Your task to perform on an android device: What's the weather going to be tomorrow? Image 0: 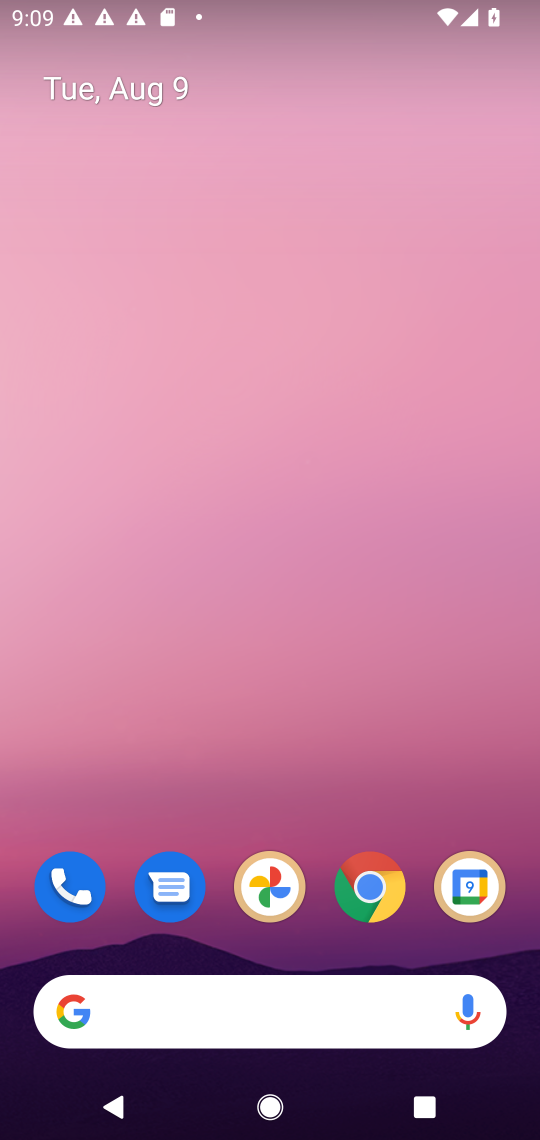
Step 0: drag from (289, 773) to (274, 276)
Your task to perform on an android device: What's the weather going to be tomorrow? Image 1: 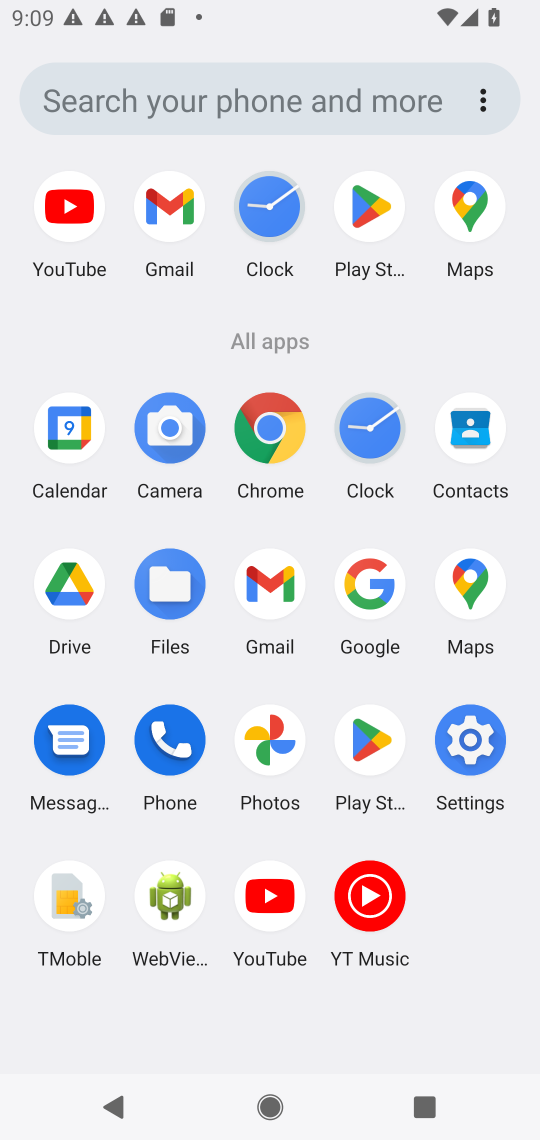
Step 1: click (369, 599)
Your task to perform on an android device: What's the weather going to be tomorrow? Image 2: 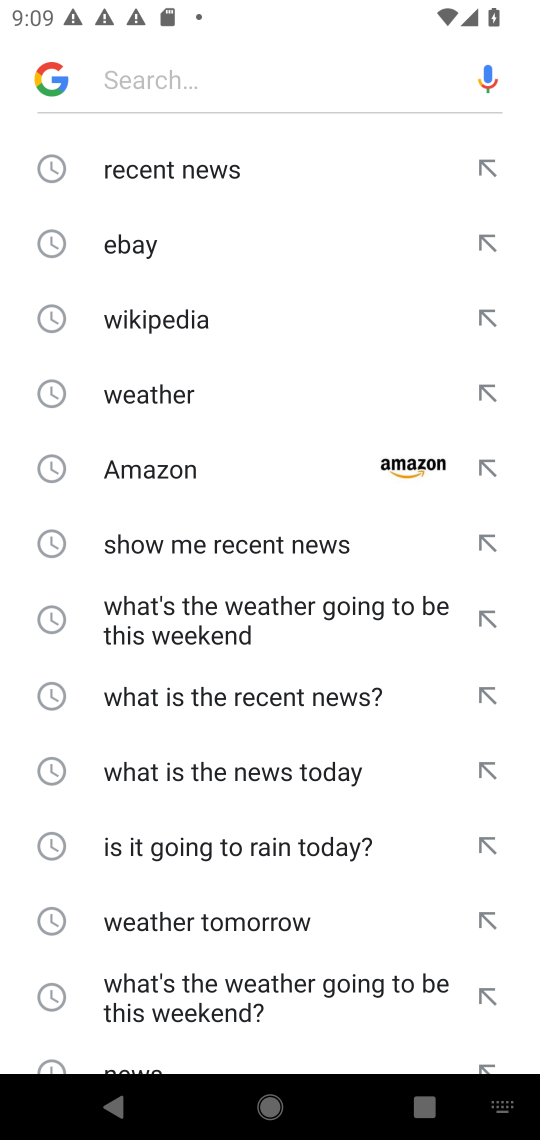
Step 2: click (202, 392)
Your task to perform on an android device: What's the weather going to be tomorrow? Image 3: 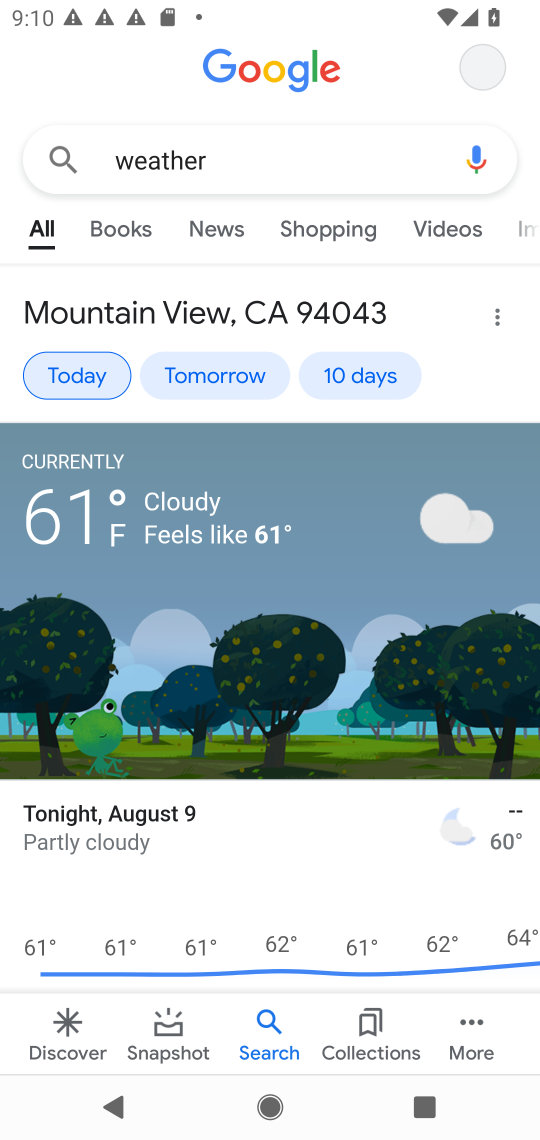
Step 3: click (207, 388)
Your task to perform on an android device: What's the weather going to be tomorrow? Image 4: 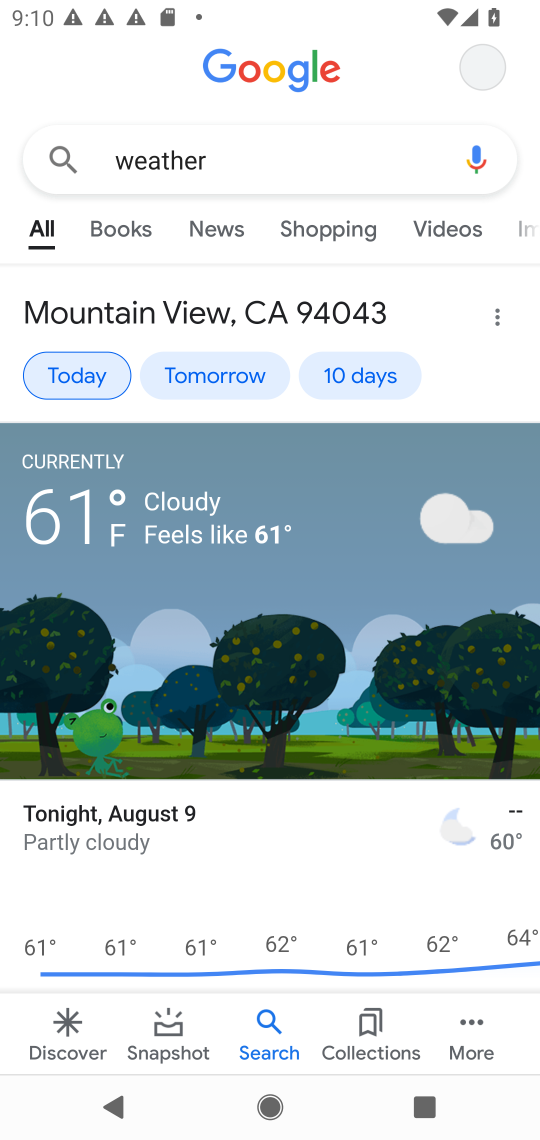
Step 4: click (207, 388)
Your task to perform on an android device: What's the weather going to be tomorrow? Image 5: 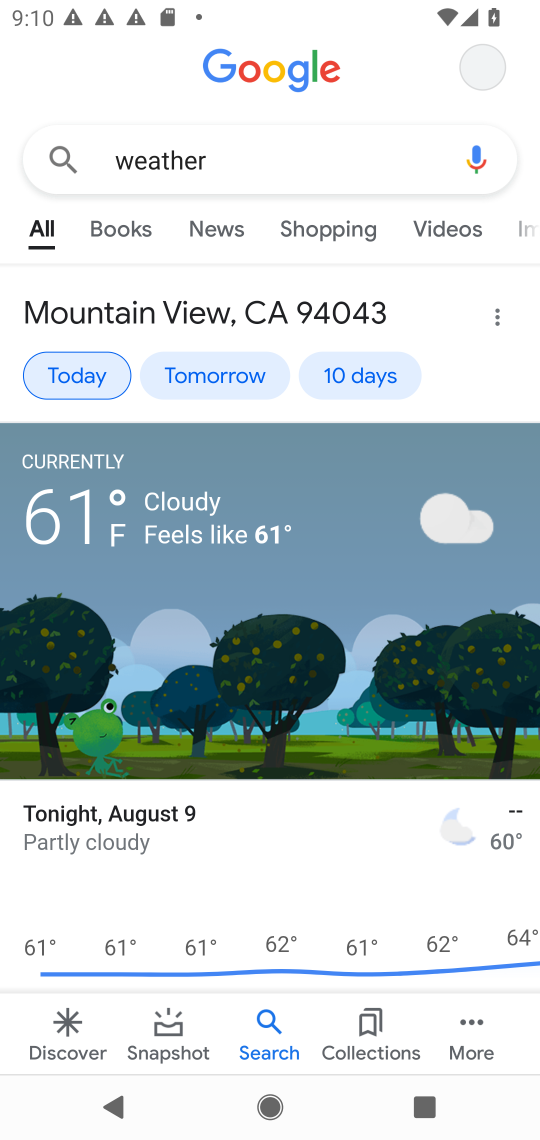
Step 5: click (216, 373)
Your task to perform on an android device: What's the weather going to be tomorrow? Image 6: 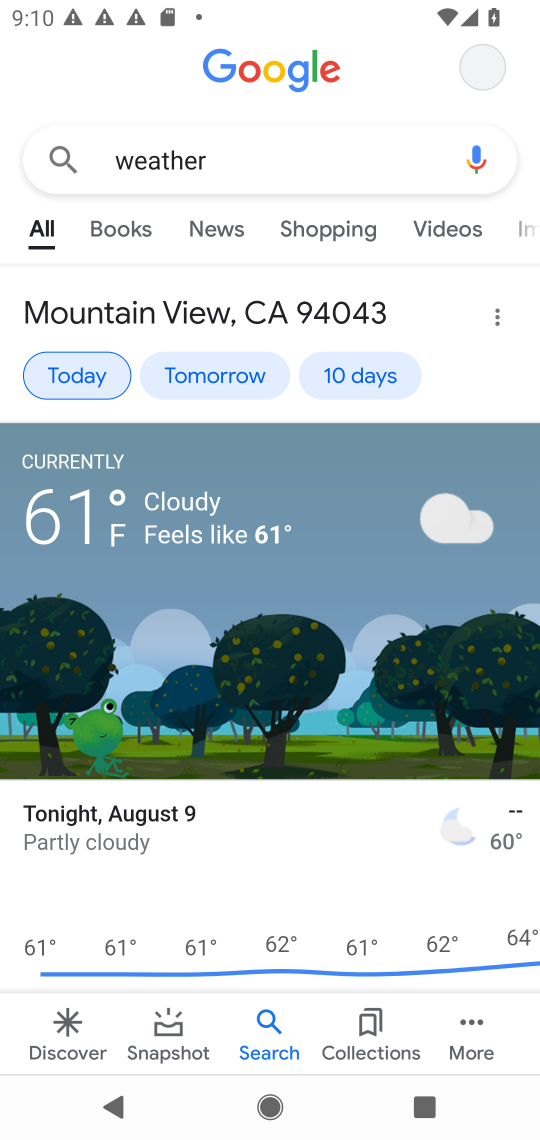
Step 6: click (221, 392)
Your task to perform on an android device: What's the weather going to be tomorrow? Image 7: 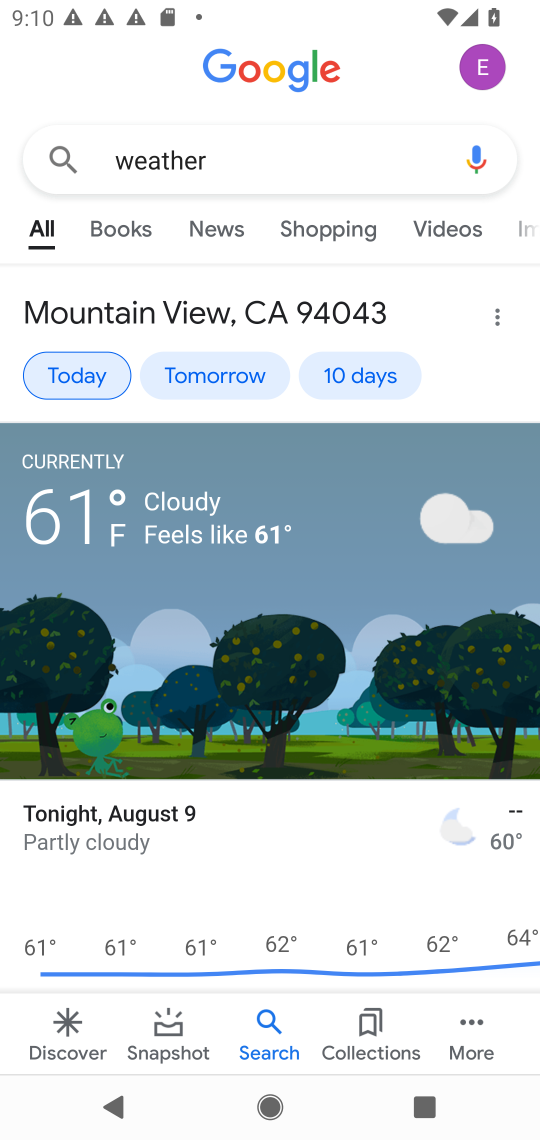
Step 7: click (263, 371)
Your task to perform on an android device: What's the weather going to be tomorrow? Image 8: 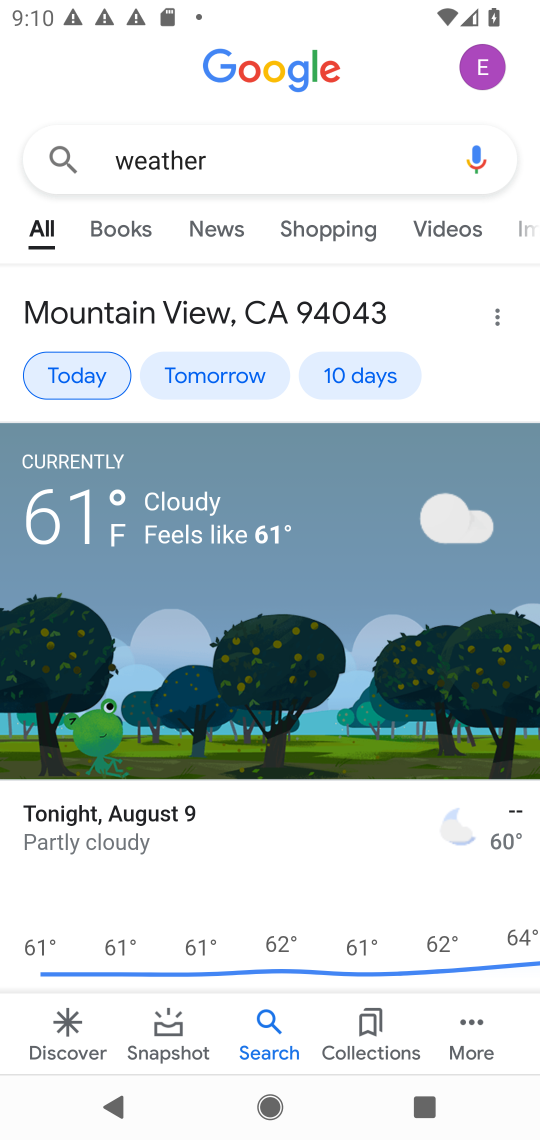
Step 8: click (265, 375)
Your task to perform on an android device: What's the weather going to be tomorrow? Image 9: 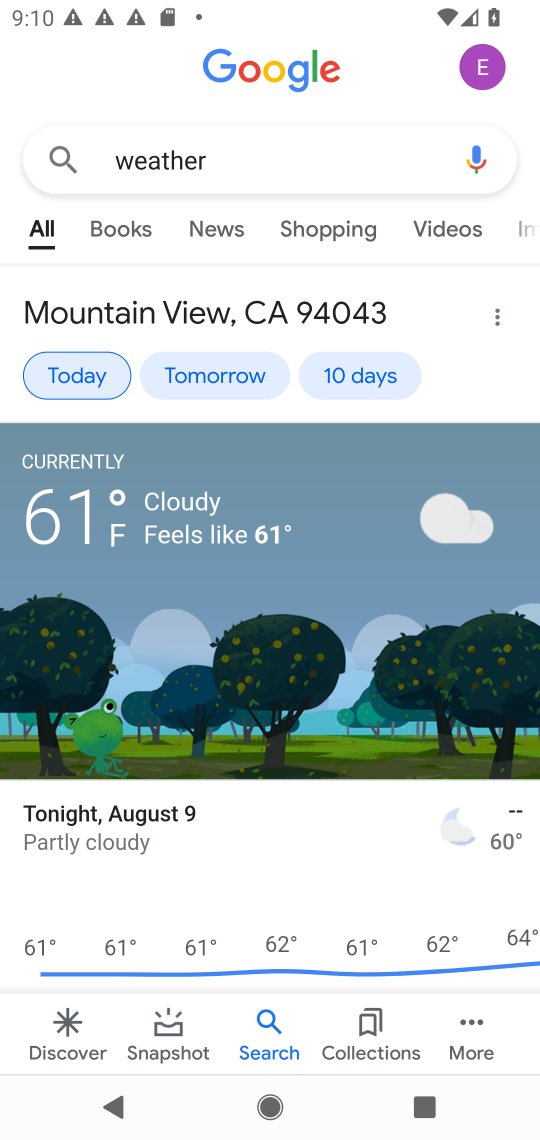
Step 9: click (201, 357)
Your task to perform on an android device: What's the weather going to be tomorrow? Image 10: 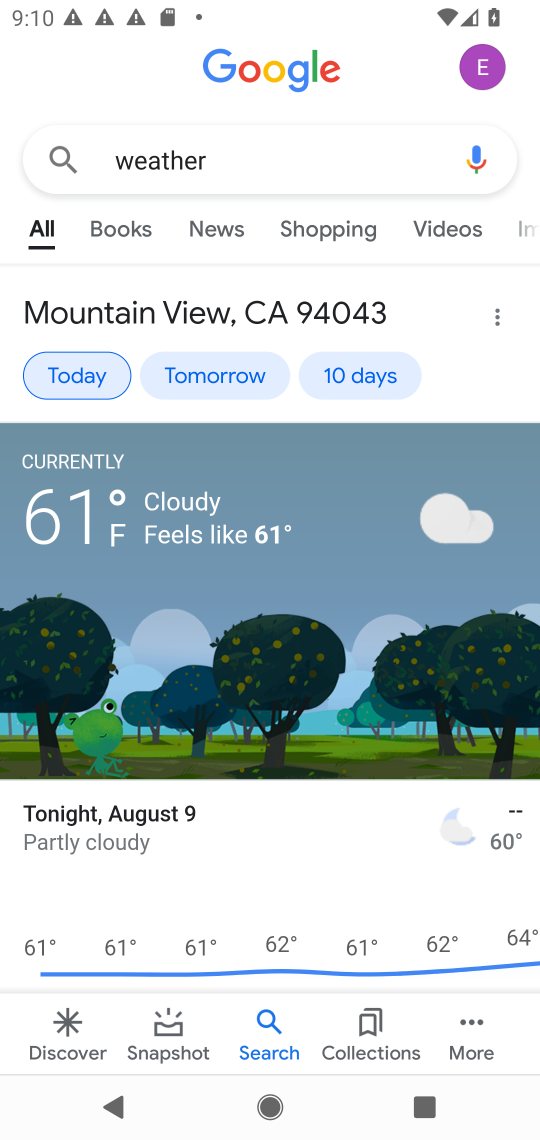
Step 10: click (176, 388)
Your task to perform on an android device: What's the weather going to be tomorrow? Image 11: 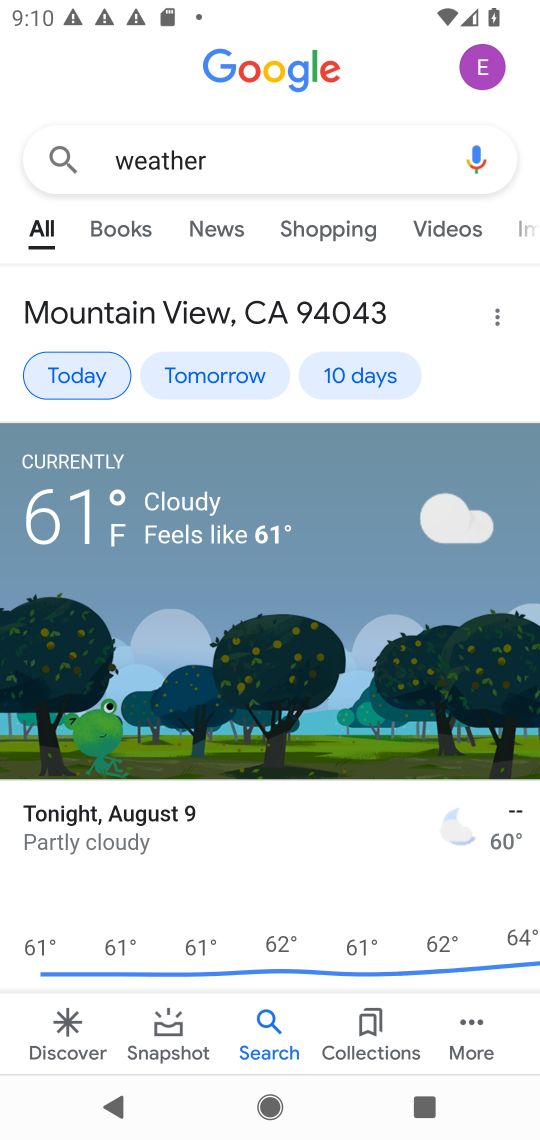
Step 11: click (260, 373)
Your task to perform on an android device: What's the weather going to be tomorrow? Image 12: 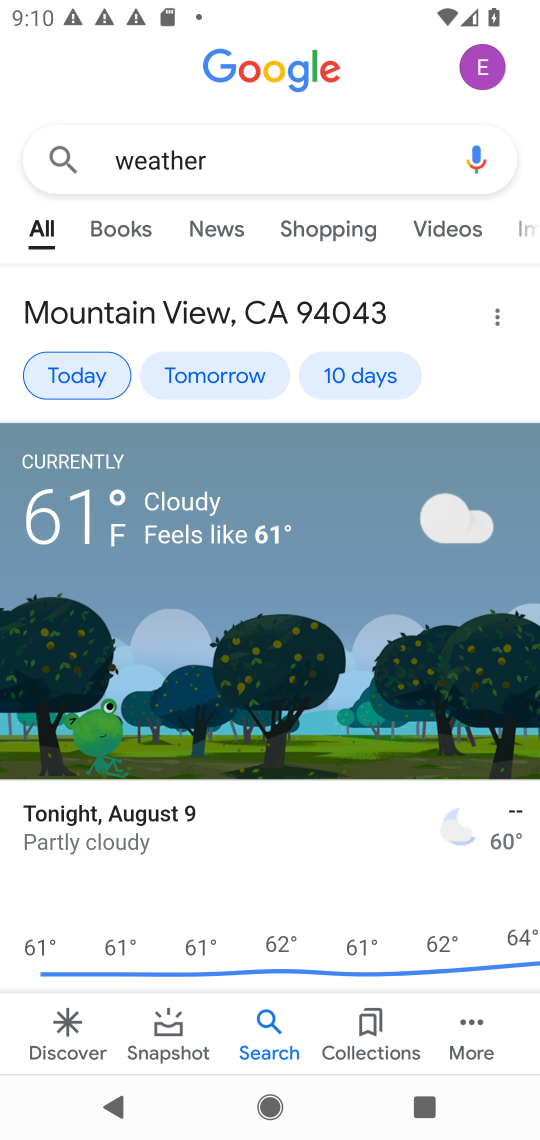
Step 12: task complete